Your task to perform on an android device: search for starred emails in the gmail app Image 0: 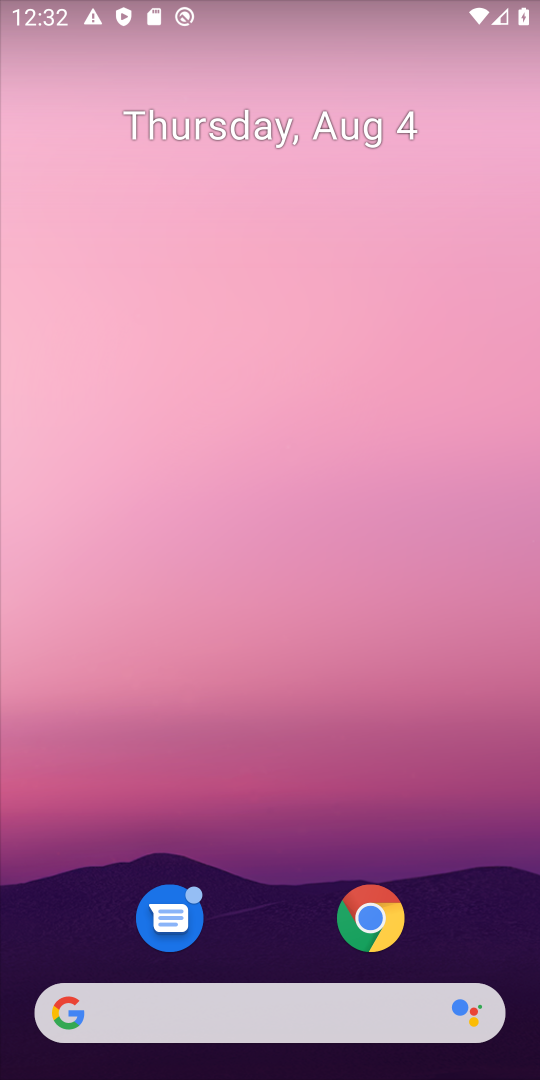
Step 0: drag from (282, 922) to (339, 201)
Your task to perform on an android device: search for starred emails in the gmail app Image 1: 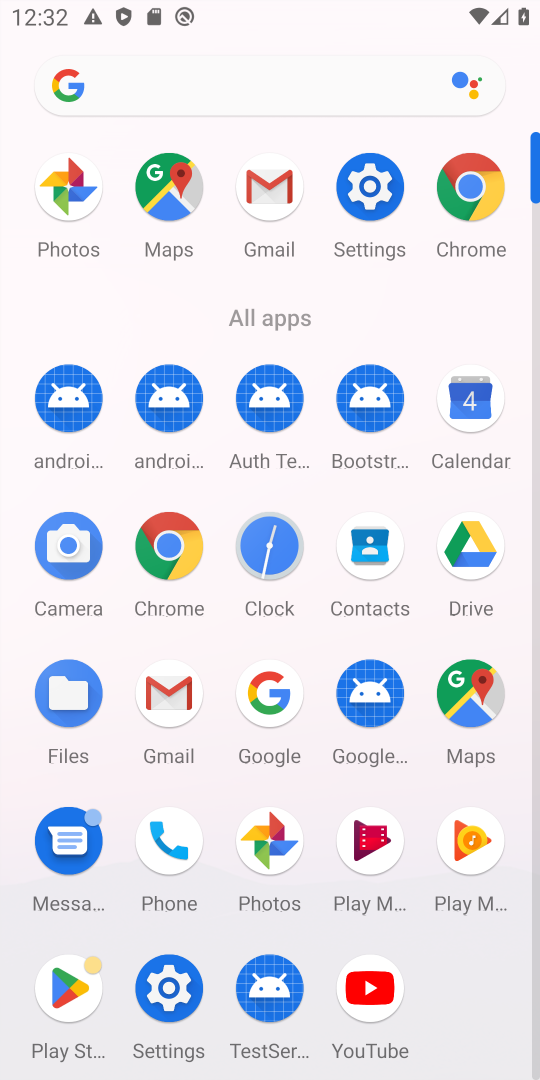
Step 1: click (275, 201)
Your task to perform on an android device: search for starred emails in the gmail app Image 2: 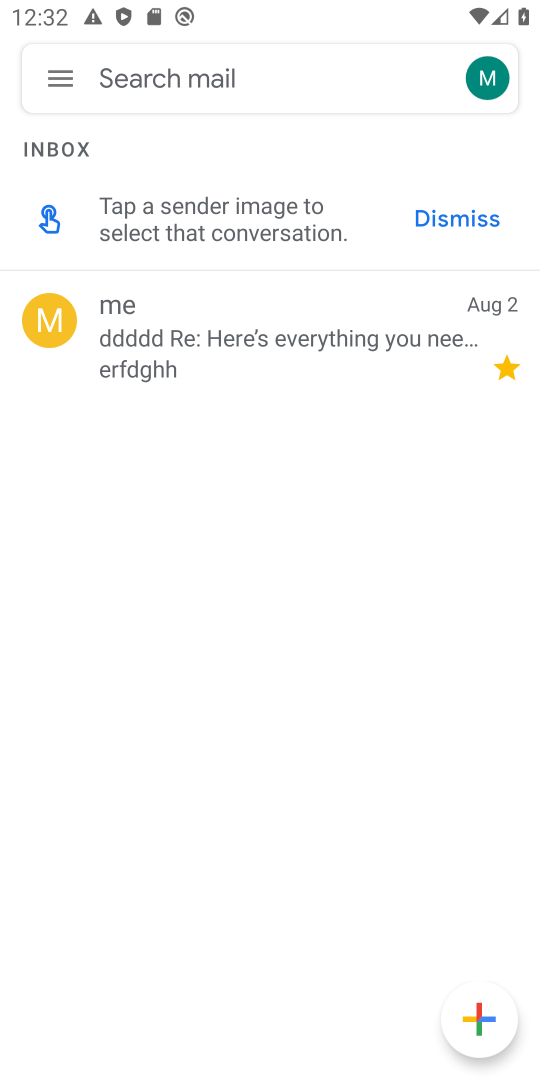
Step 2: click (51, 67)
Your task to perform on an android device: search for starred emails in the gmail app Image 3: 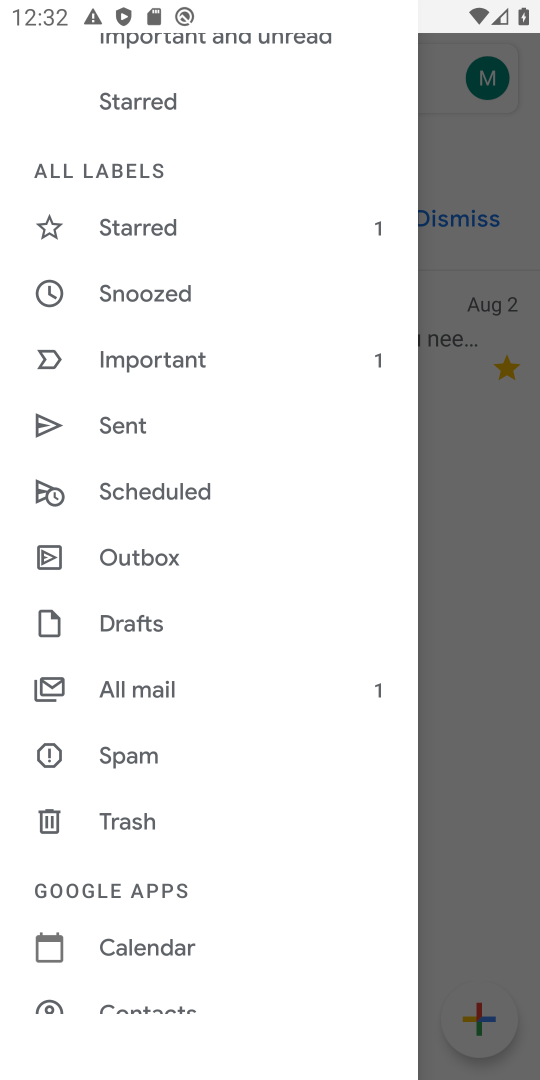
Step 3: click (179, 227)
Your task to perform on an android device: search for starred emails in the gmail app Image 4: 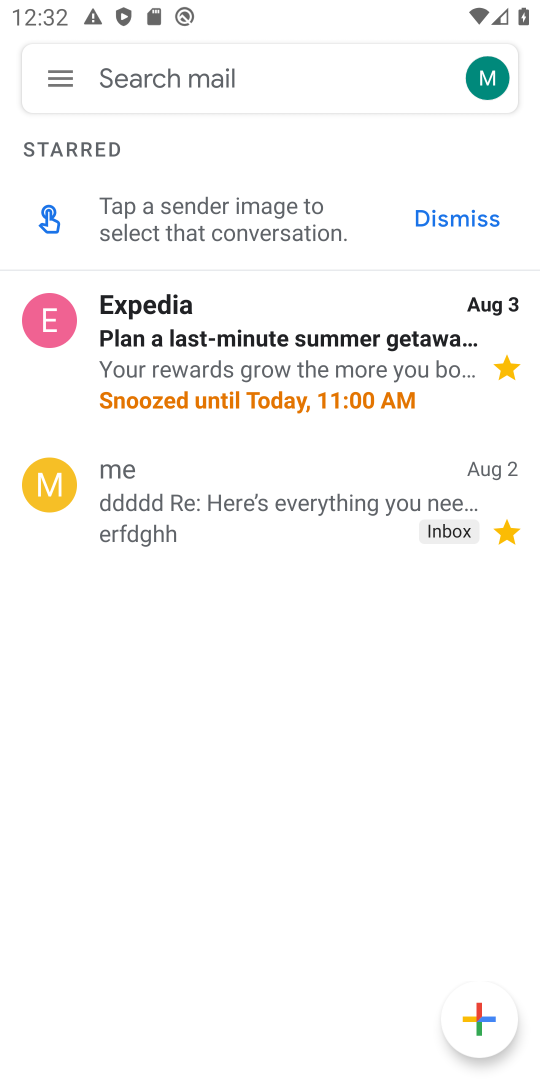
Step 4: task complete